Your task to perform on an android device: set the stopwatch Image 0: 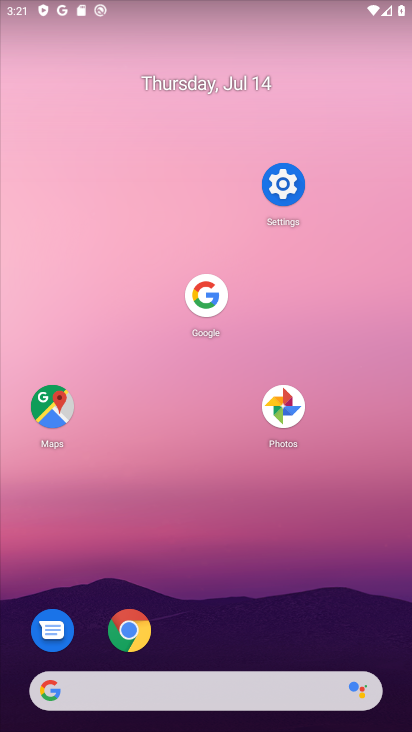
Step 0: drag from (282, 579) to (252, 85)
Your task to perform on an android device: set the stopwatch Image 1: 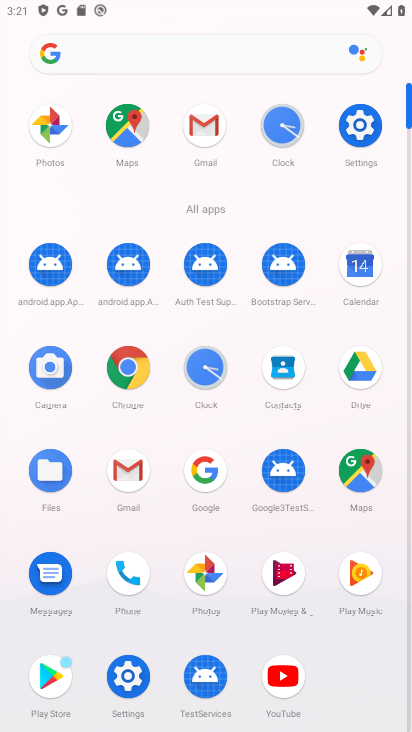
Step 1: drag from (287, 120) to (204, 179)
Your task to perform on an android device: set the stopwatch Image 2: 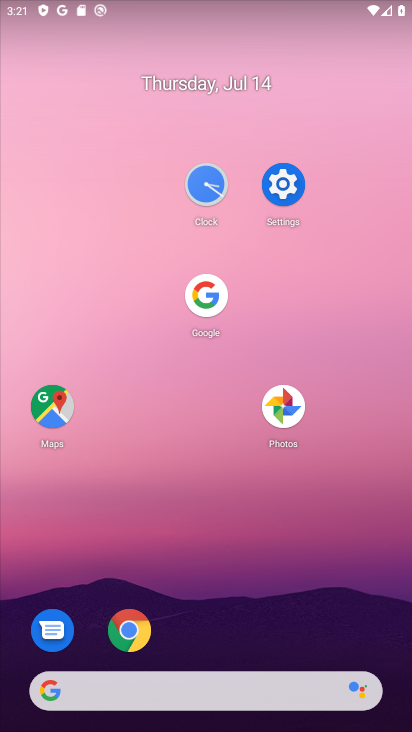
Step 2: click (204, 180)
Your task to perform on an android device: set the stopwatch Image 3: 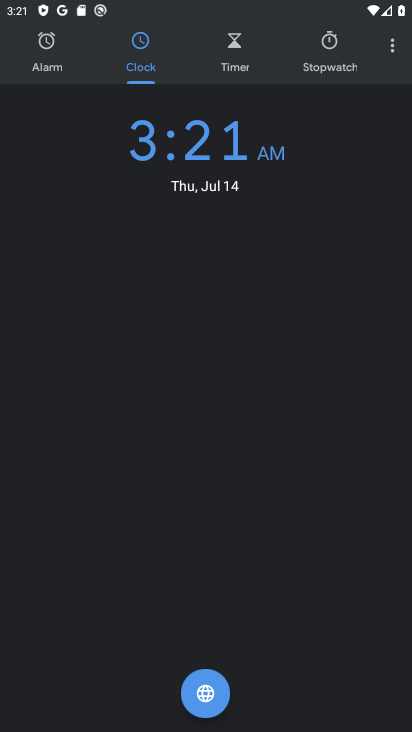
Step 3: click (331, 52)
Your task to perform on an android device: set the stopwatch Image 4: 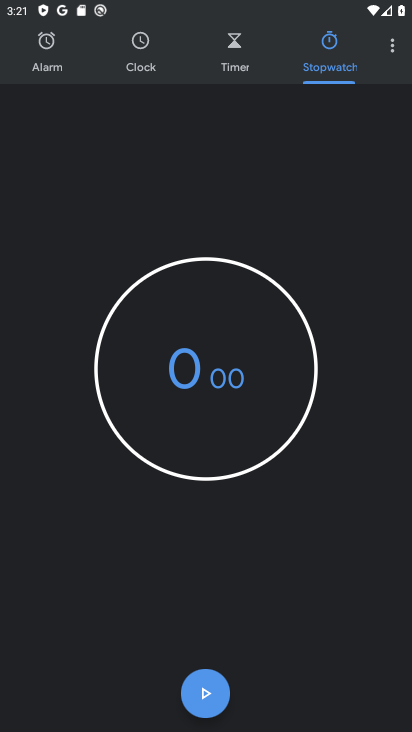
Step 4: click (254, 354)
Your task to perform on an android device: set the stopwatch Image 5: 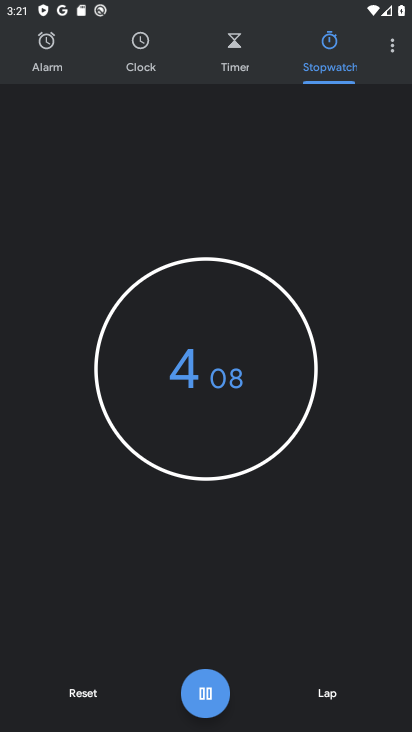
Step 5: task complete